Your task to perform on an android device: open app "Life360: Find Family & Friends" Image 0: 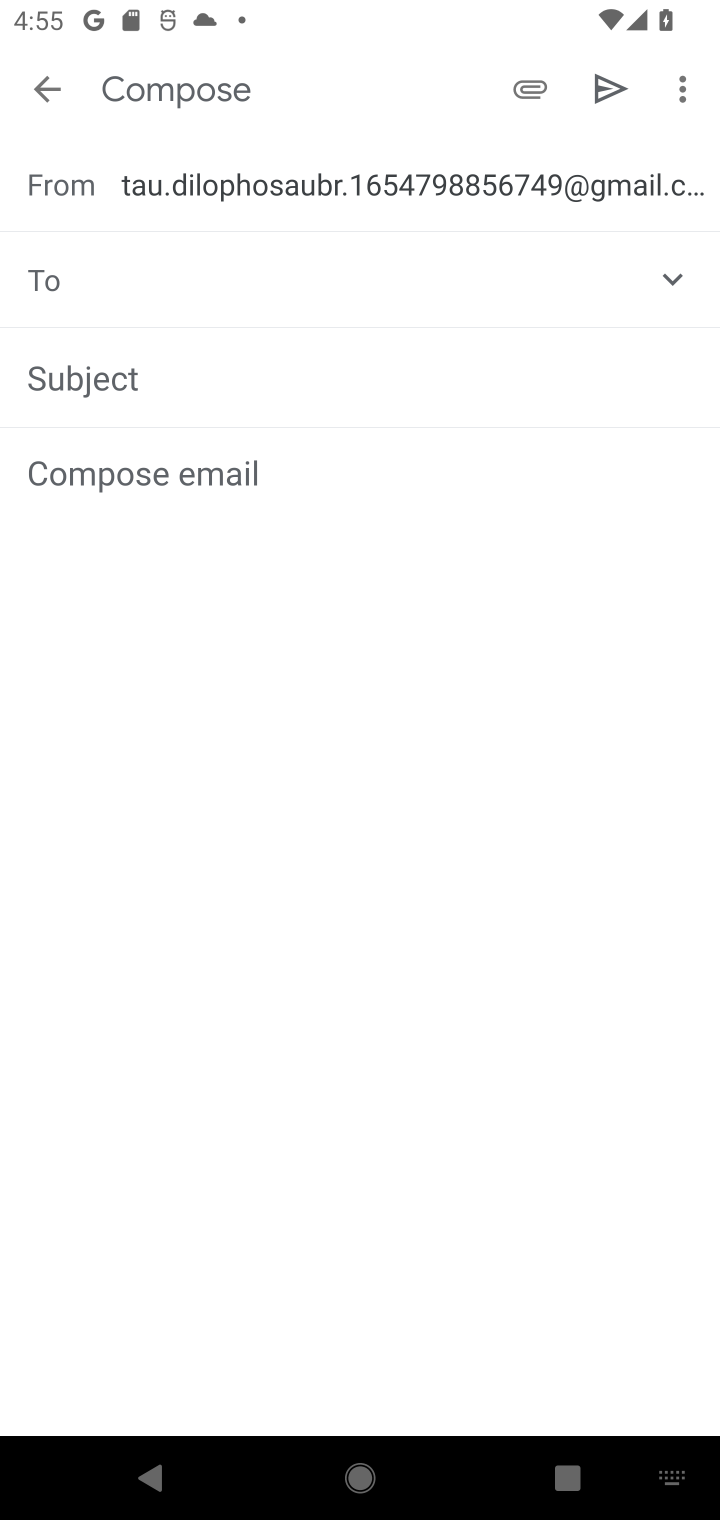
Step 0: press home button
Your task to perform on an android device: open app "Life360: Find Family & Friends" Image 1: 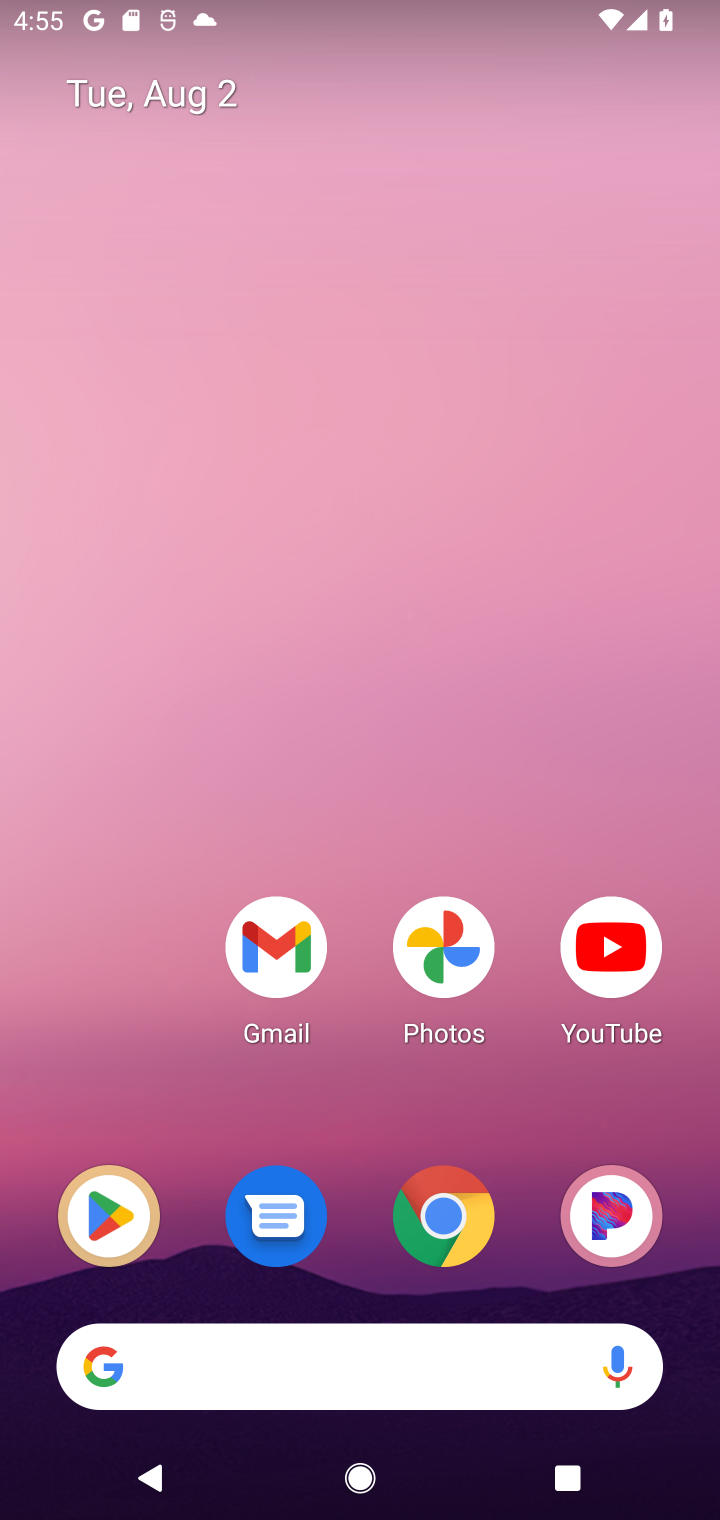
Step 1: click (111, 1238)
Your task to perform on an android device: open app "Life360: Find Family & Friends" Image 2: 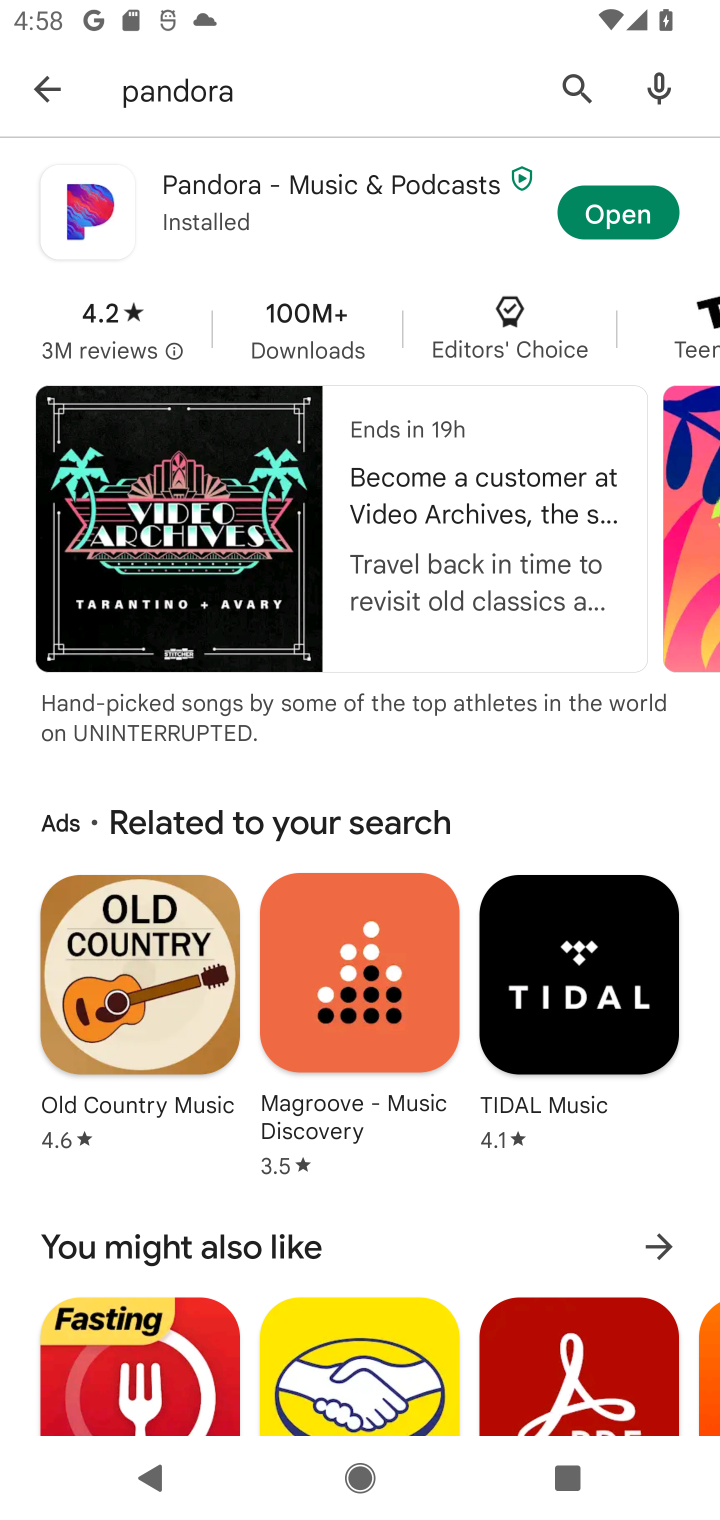
Step 2: click (570, 103)
Your task to perform on an android device: open app "Life360: Find Family & Friends" Image 3: 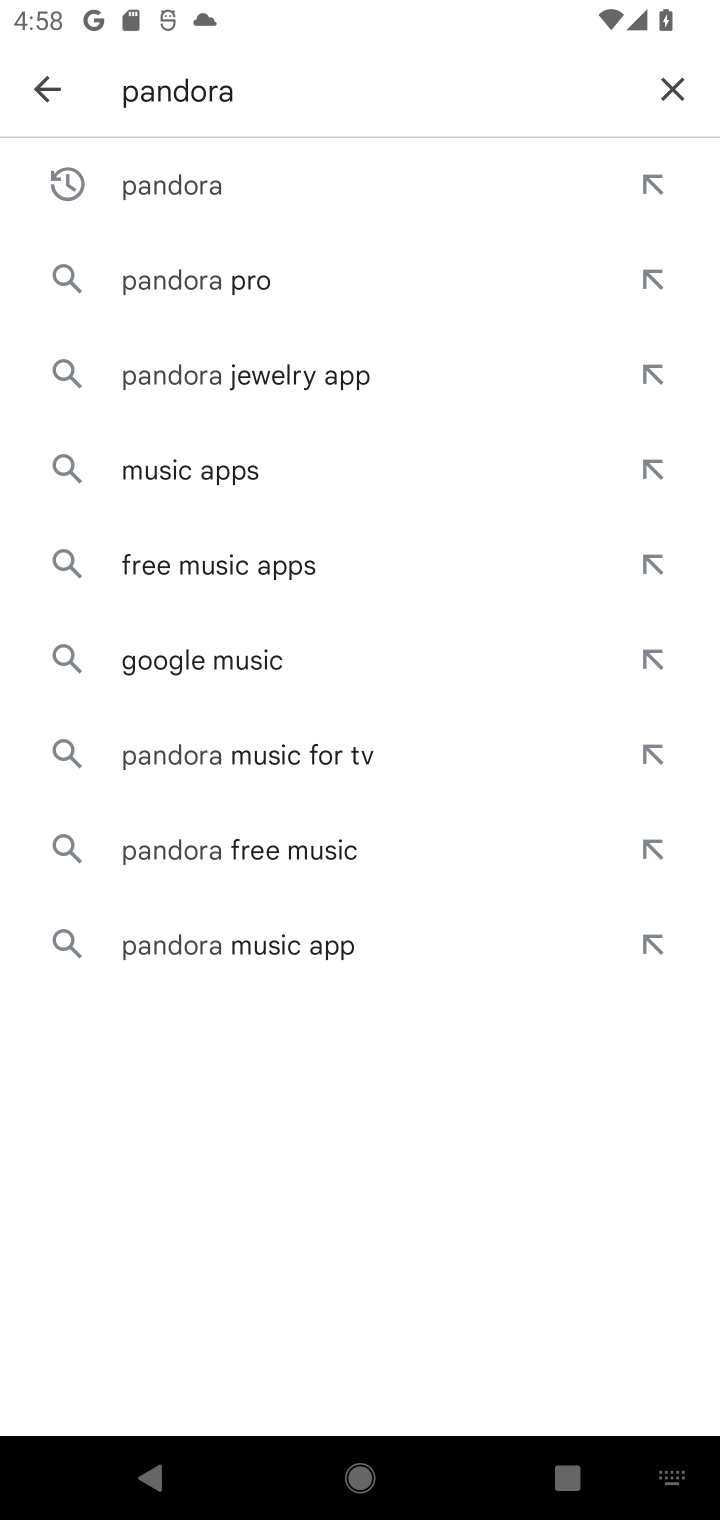
Step 3: click (693, 92)
Your task to perform on an android device: open app "Life360: Find Family & Friends" Image 4: 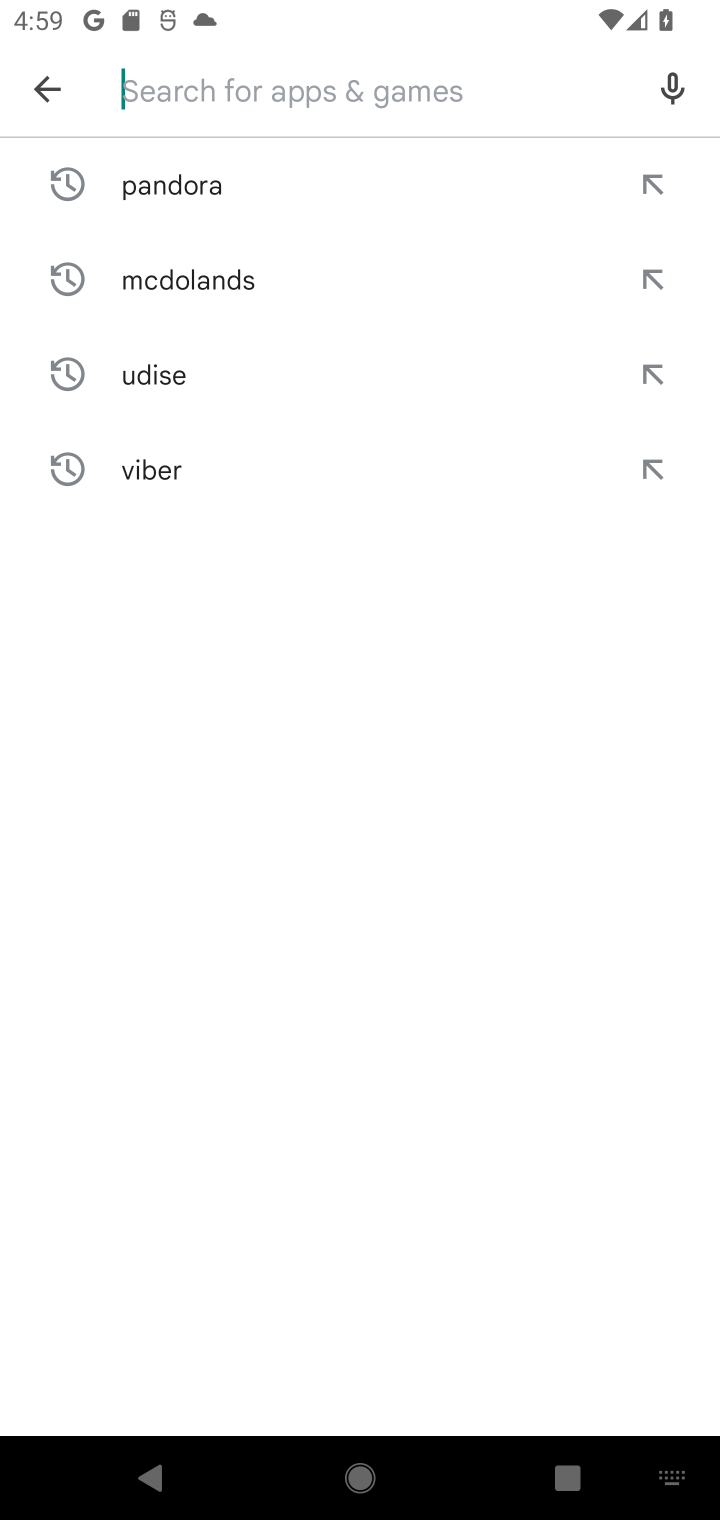
Step 4: type "life360"
Your task to perform on an android device: open app "Life360: Find Family & Friends" Image 5: 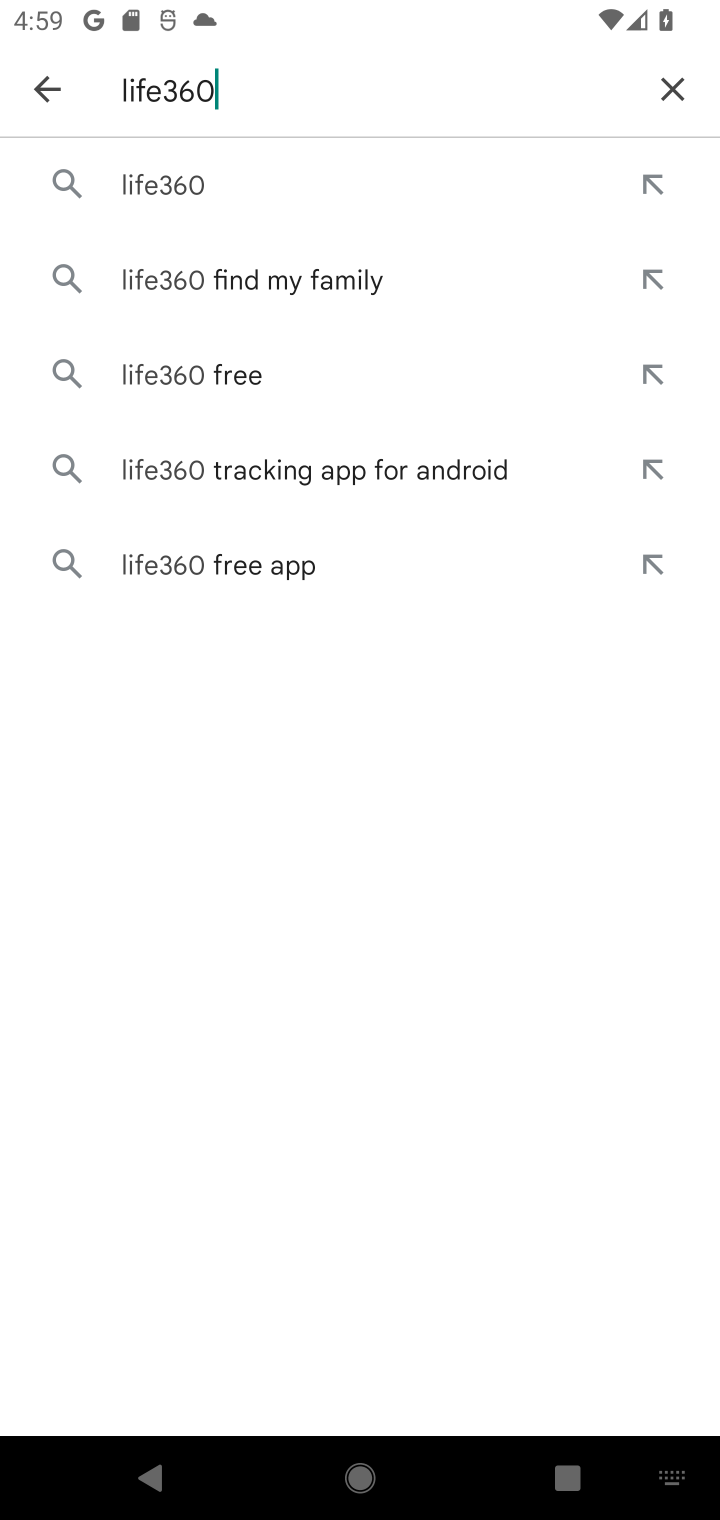
Step 5: click (126, 181)
Your task to perform on an android device: open app "Life360: Find Family & Friends" Image 6: 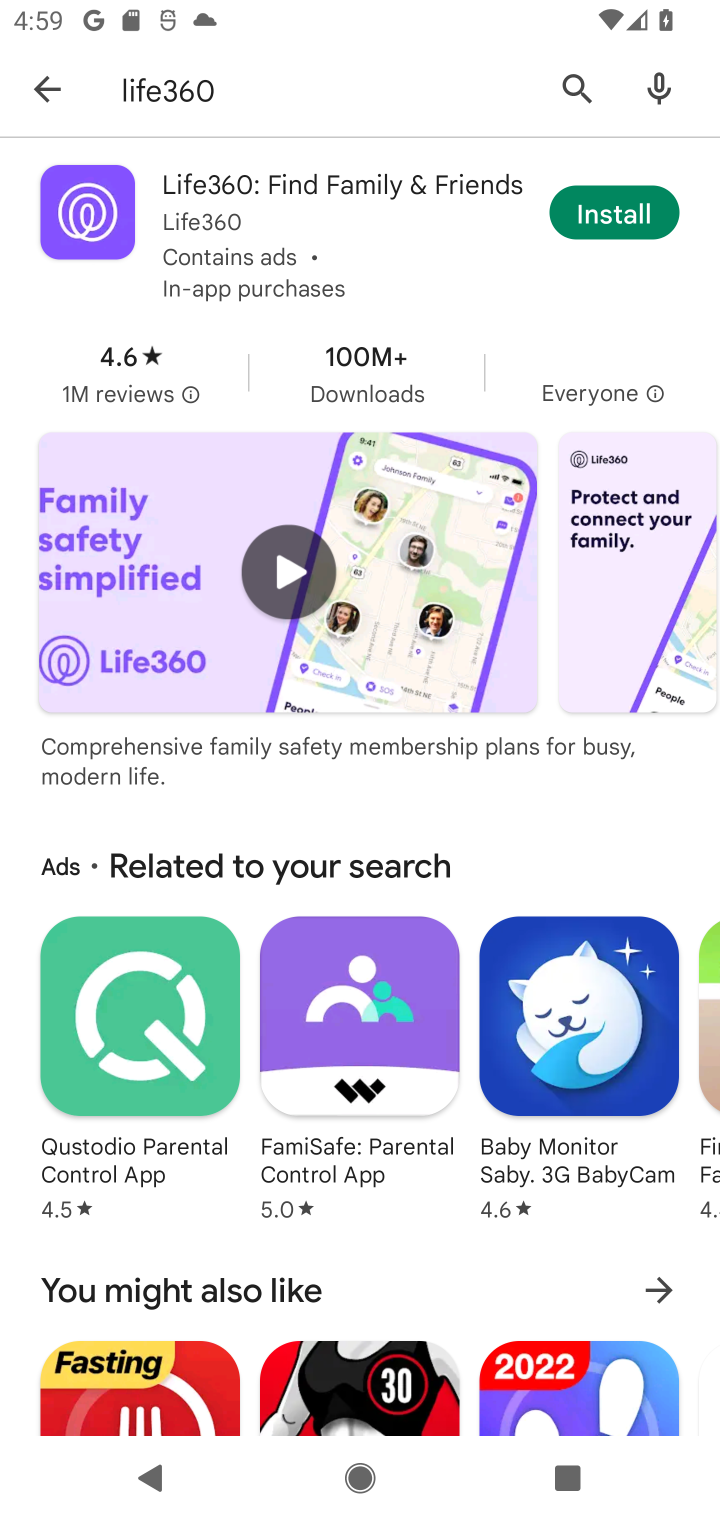
Step 6: click (615, 224)
Your task to perform on an android device: open app "Life360: Find Family & Friends" Image 7: 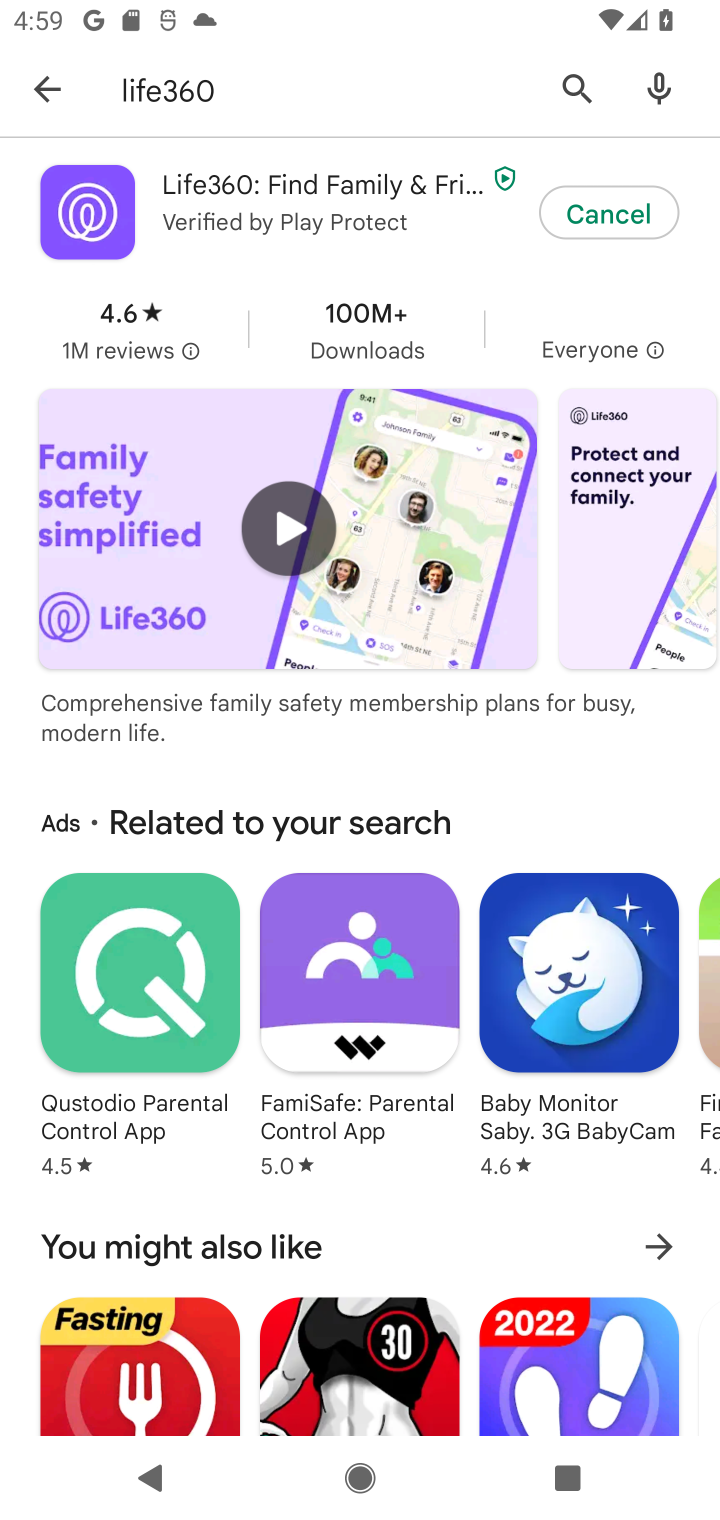
Step 7: task complete